Your task to perform on an android device: Open sound settings Image 0: 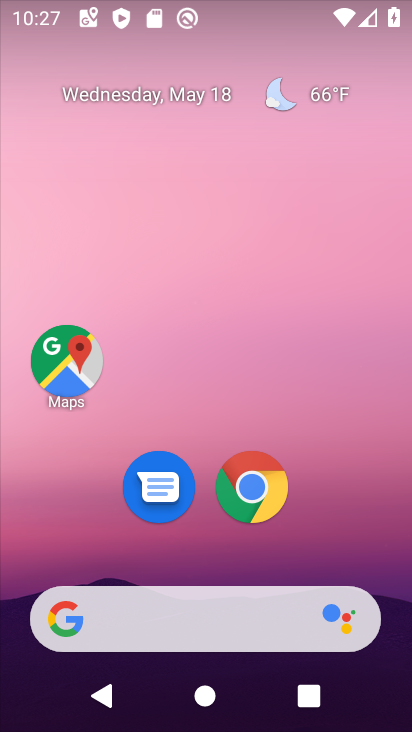
Step 0: drag from (231, 565) to (256, 11)
Your task to perform on an android device: Open sound settings Image 1: 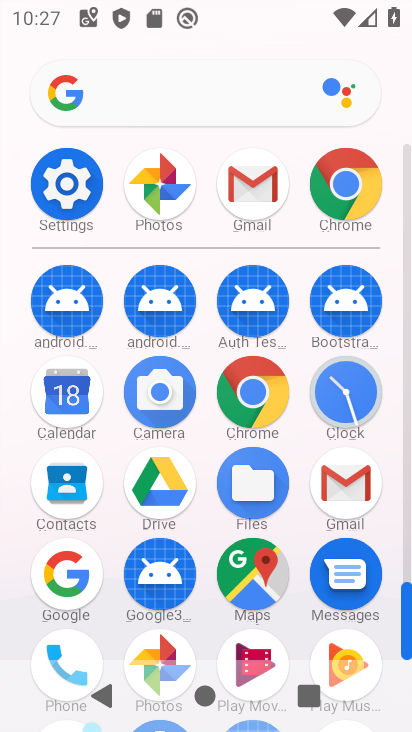
Step 1: click (80, 170)
Your task to perform on an android device: Open sound settings Image 2: 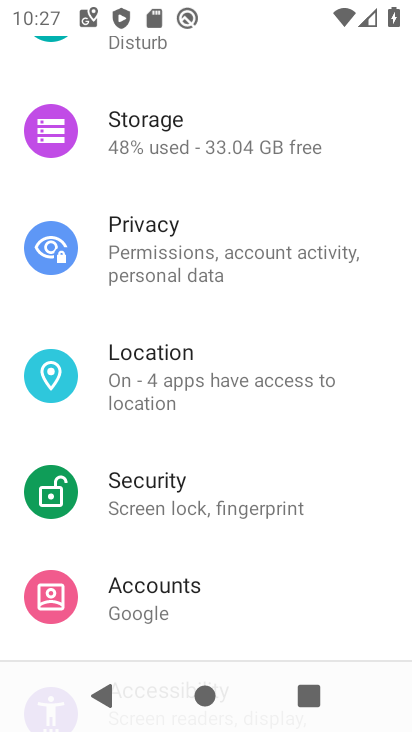
Step 2: drag from (195, 152) to (172, 660)
Your task to perform on an android device: Open sound settings Image 3: 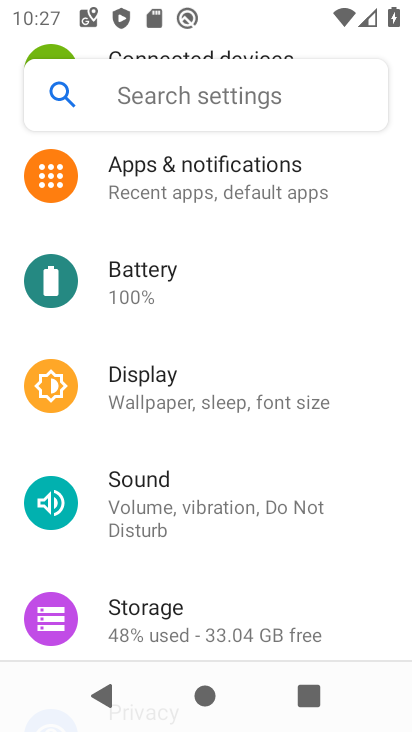
Step 3: click (180, 485)
Your task to perform on an android device: Open sound settings Image 4: 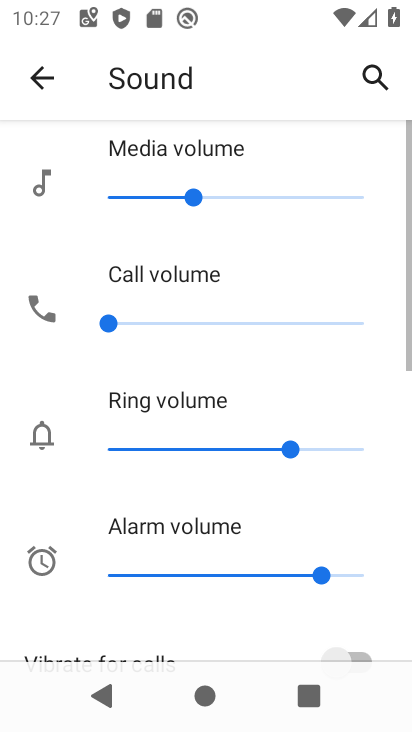
Step 4: task complete